Your task to perform on an android device: turn off picture-in-picture Image 0: 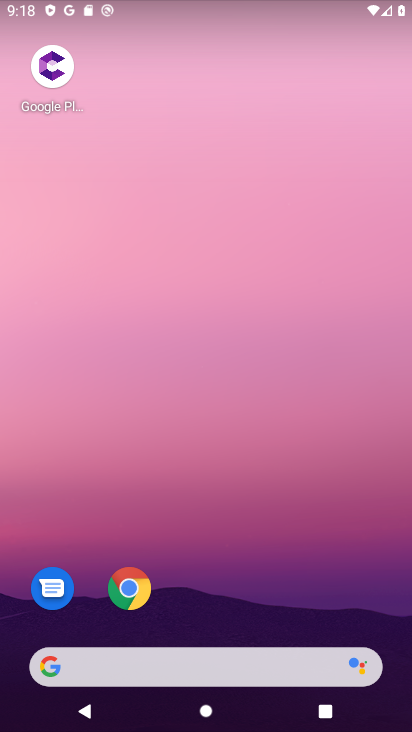
Step 0: click (115, 585)
Your task to perform on an android device: turn off picture-in-picture Image 1: 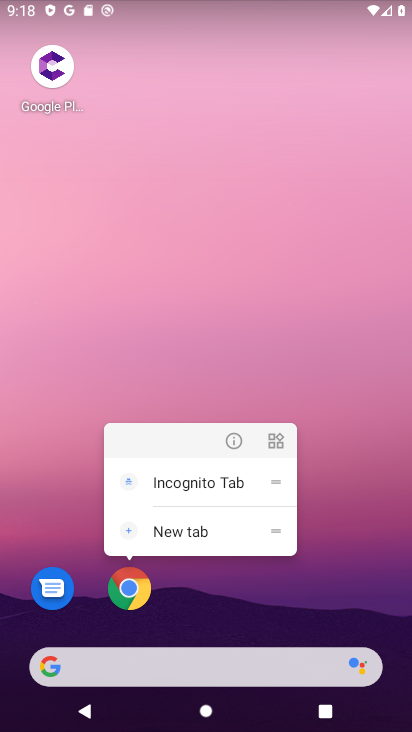
Step 1: click (233, 438)
Your task to perform on an android device: turn off picture-in-picture Image 2: 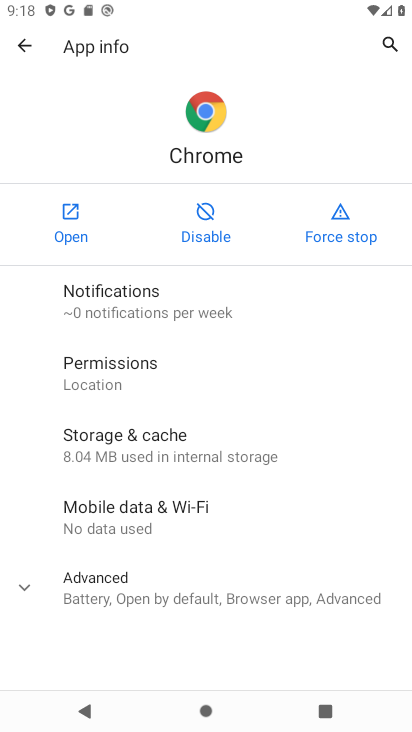
Step 2: click (110, 591)
Your task to perform on an android device: turn off picture-in-picture Image 3: 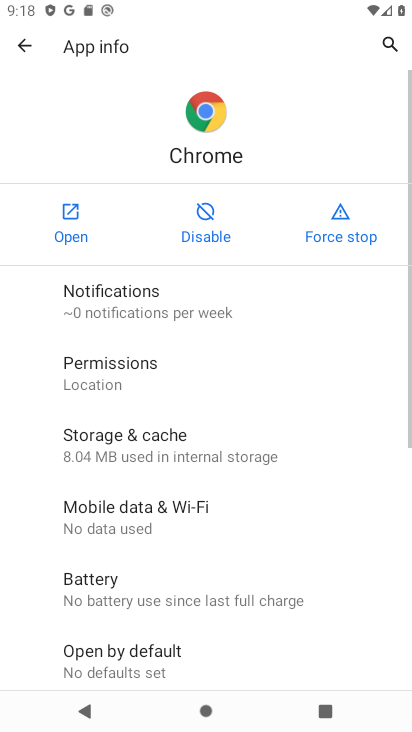
Step 3: drag from (218, 626) to (219, 296)
Your task to perform on an android device: turn off picture-in-picture Image 4: 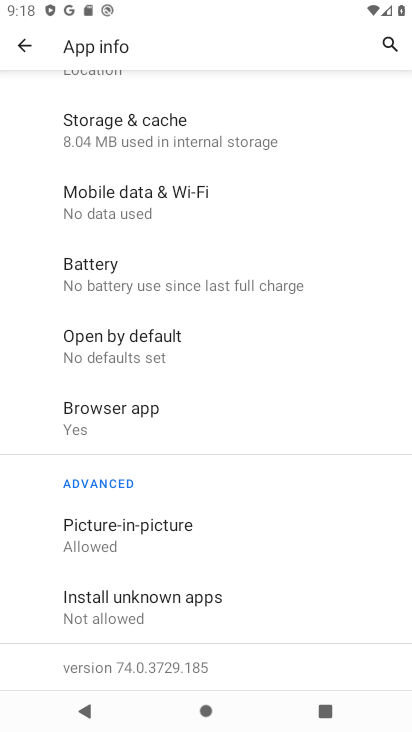
Step 4: drag from (209, 600) to (240, 314)
Your task to perform on an android device: turn off picture-in-picture Image 5: 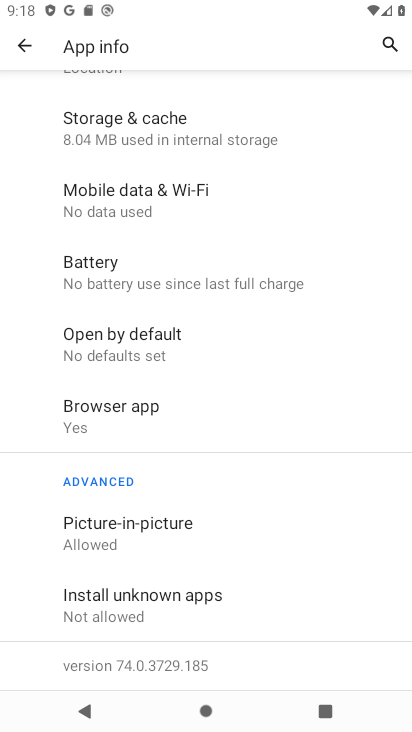
Step 5: click (128, 518)
Your task to perform on an android device: turn off picture-in-picture Image 6: 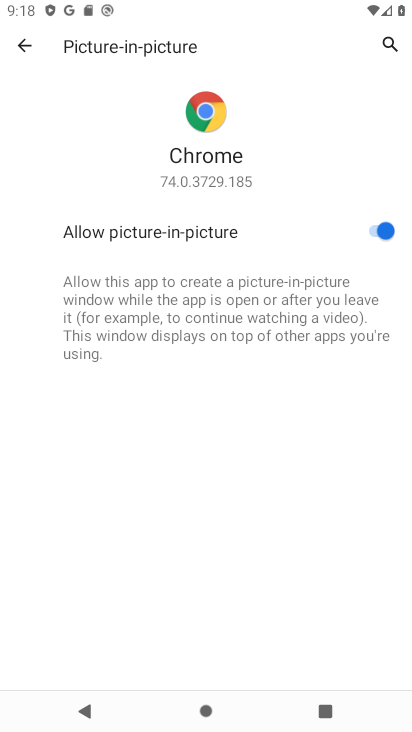
Step 6: click (219, 237)
Your task to perform on an android device: turn off picture-in-picture Image 7: 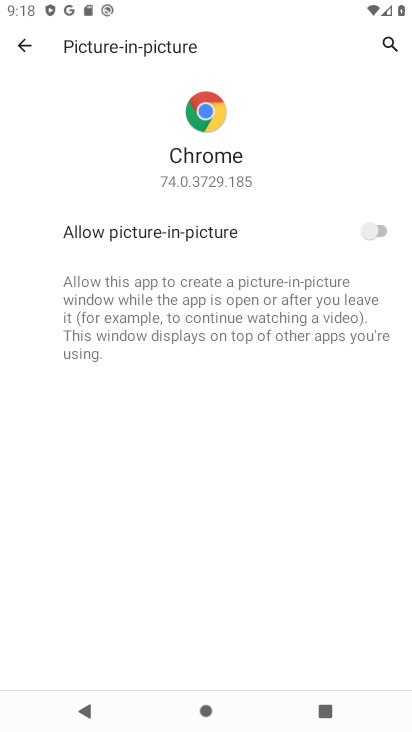
Step 7: task complete